Your task to perform on an android device: change notifications settings Image 0: 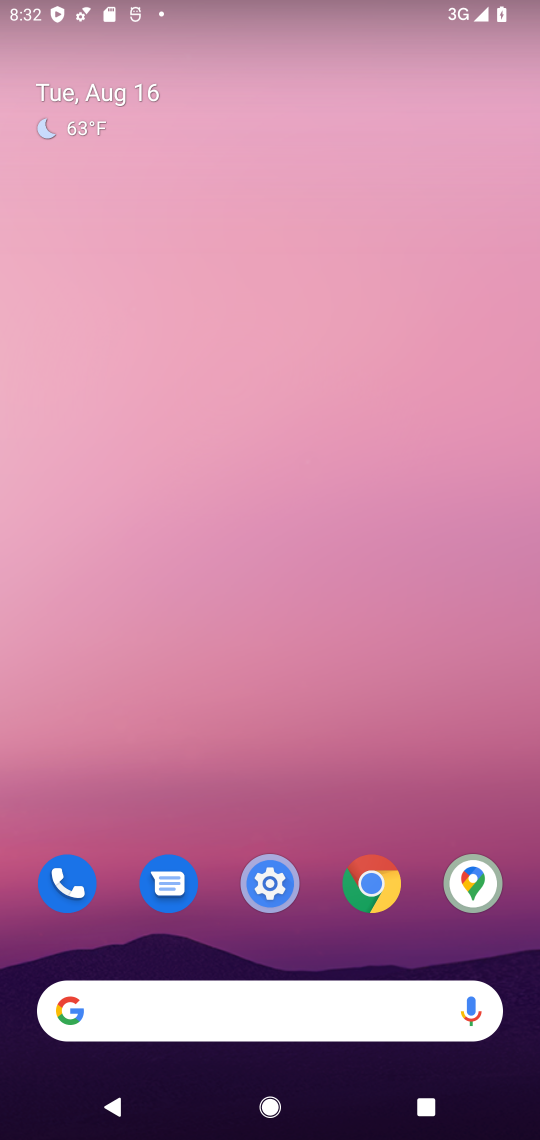
Step 0: click (285, 869)
Your task to perform on an android device: change notifications settings Image 1: 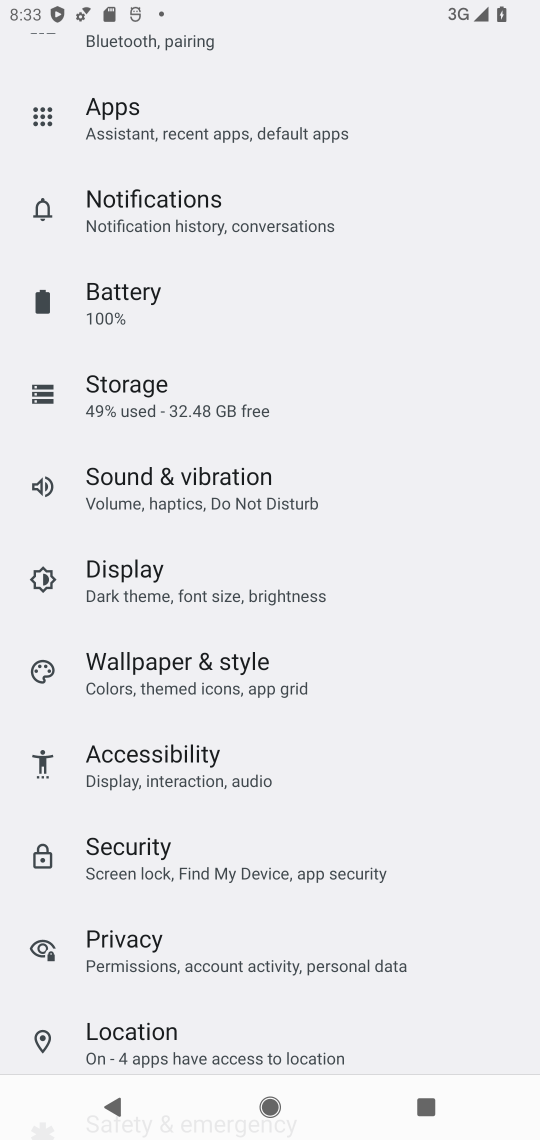
Step 1: click (147, 207)
Your task to perform on an android device: change notifications settings Image 2: 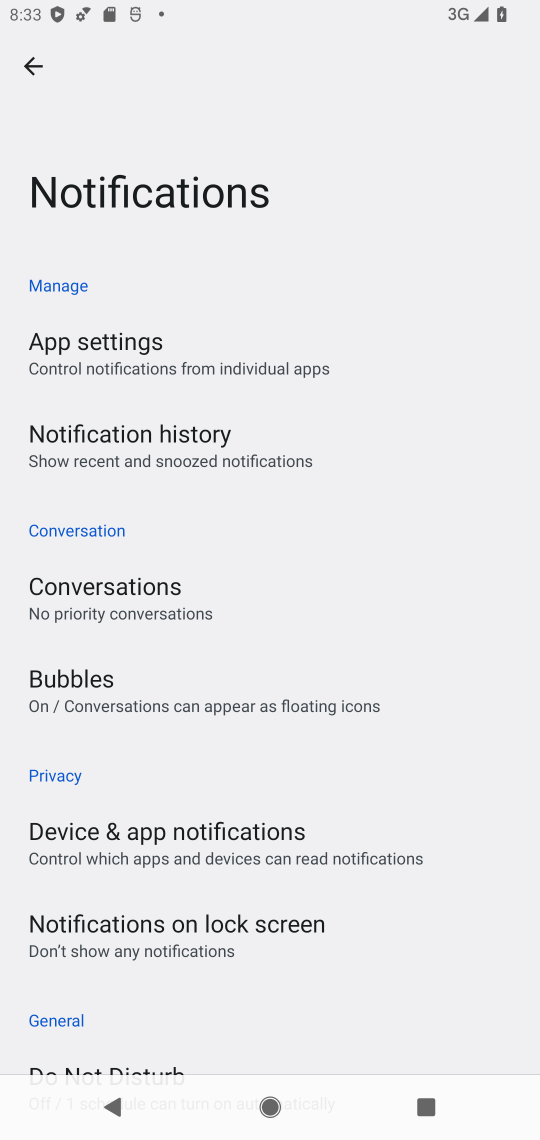
Step 2: drag from (300, 209) to (364, 19)
Your task to perform on an android device: change notifications settings Image 3: 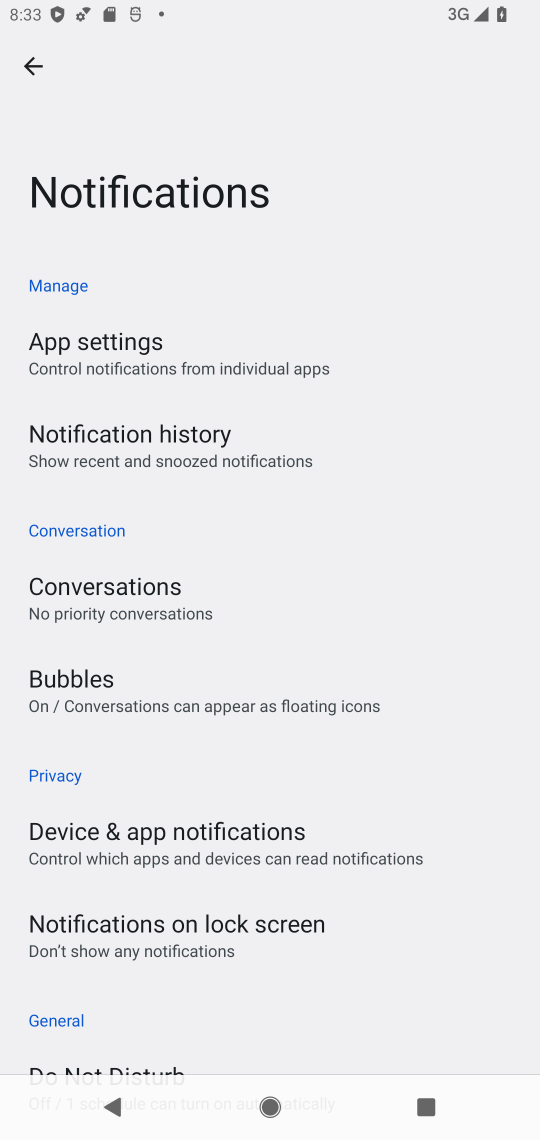
Step 3: drag from (452, 991) to (448, 349)
Your task to perform on an android device: change notifications settings Image 4: 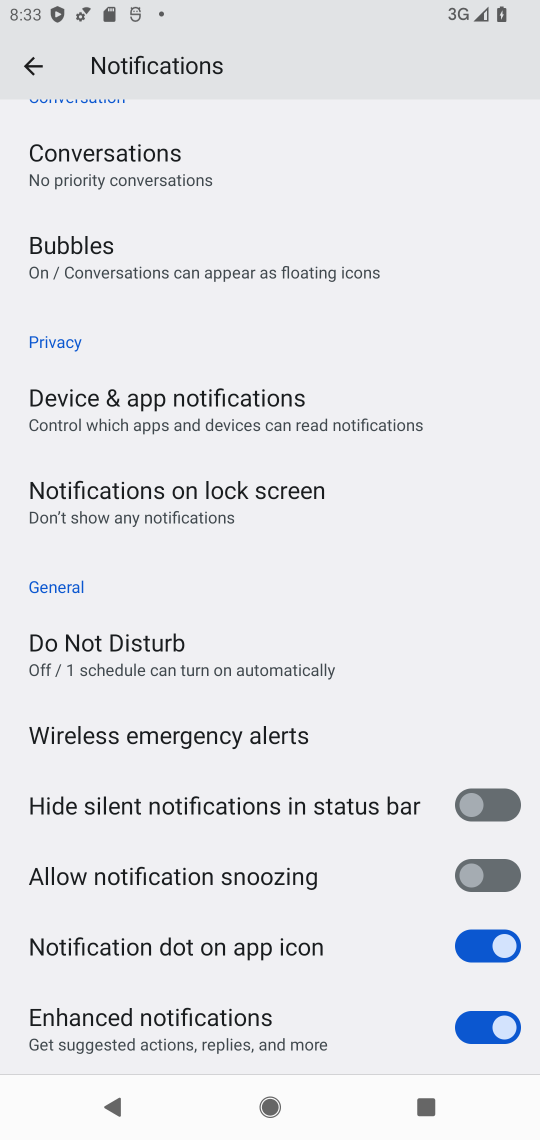
Step 4: click (480, 881)
Your task to perform on an android device: change notifications settings Image 5: 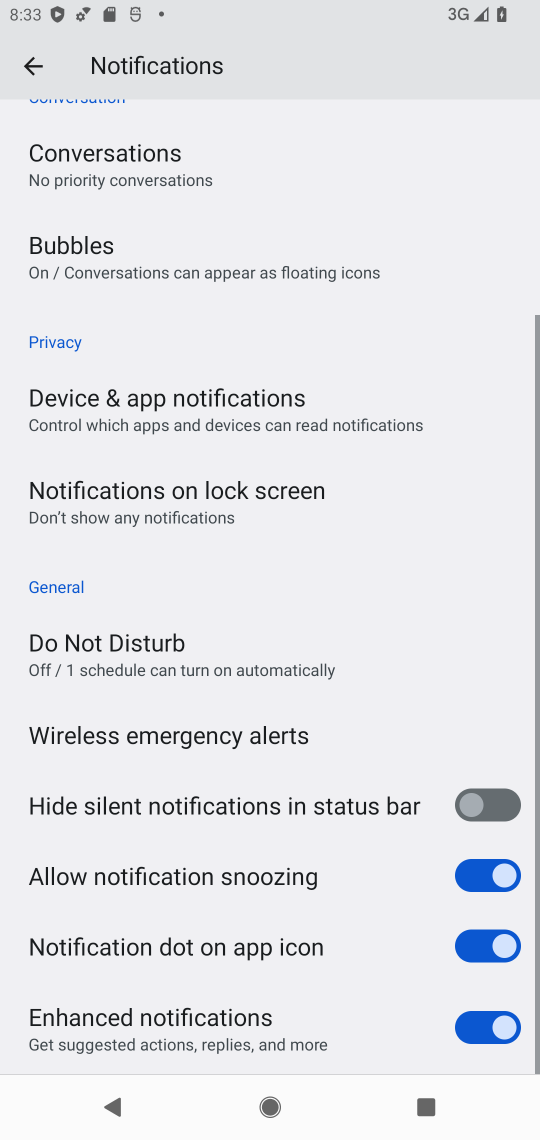
Step 5: click (471, 797)
Your task to perform on an android device: change notifications settings Image 6: 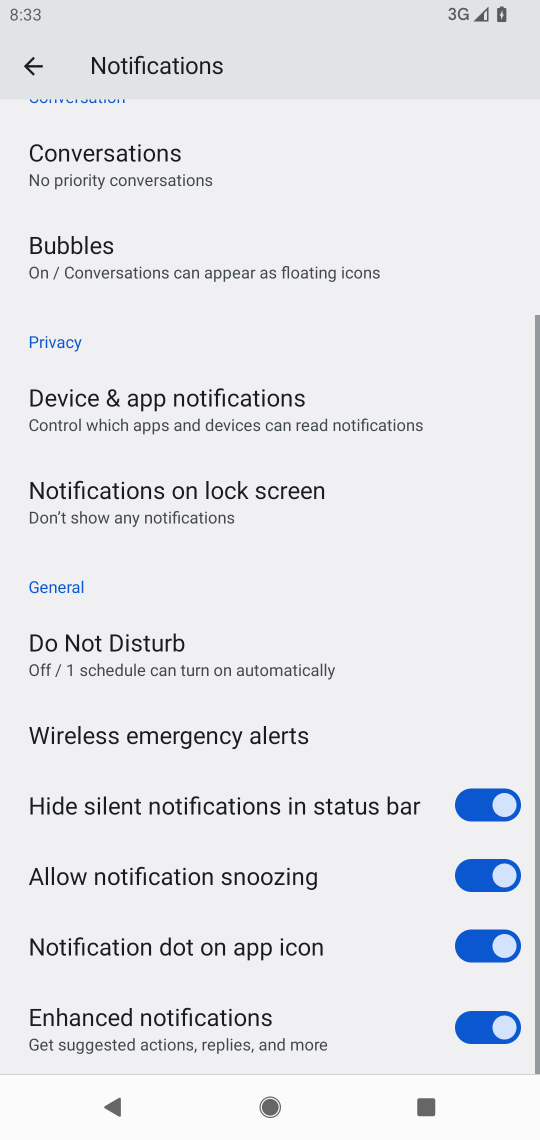
Step 6: click (495, 949)
Your task to perform on an android device: change notifications settings Image 7: 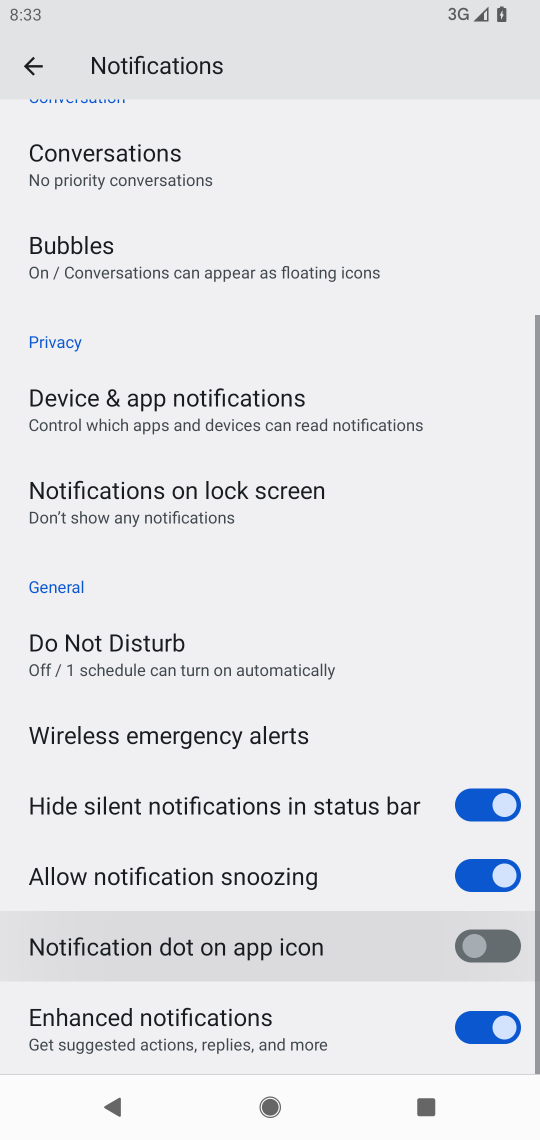
Step 7: click (503, 1034)
Your task to perform on an android device: change notifications settings Image 8: 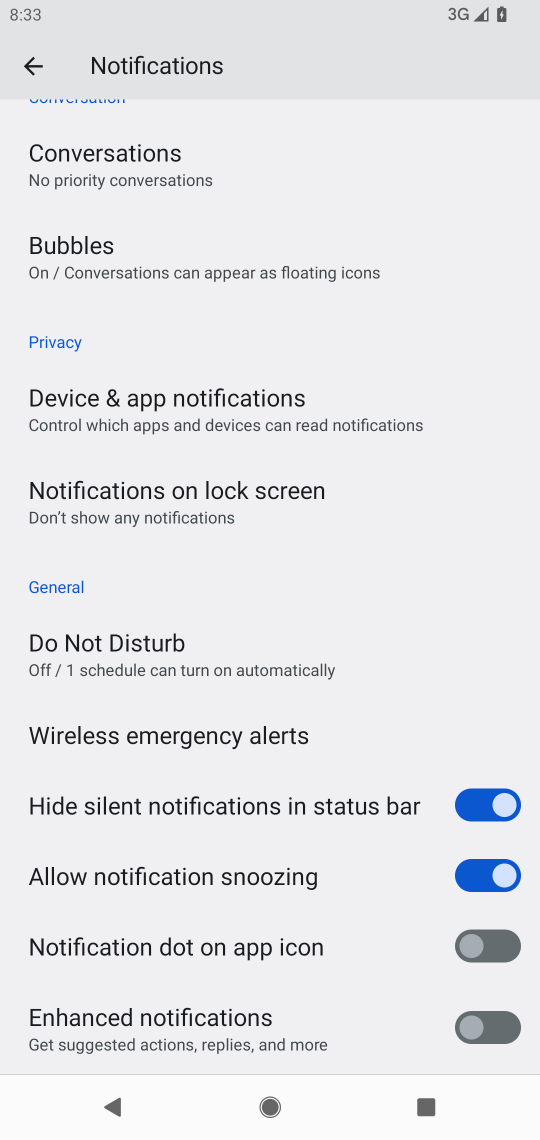
Step 8: task complete